Your task to perform on an android device: turn off priority inbox in the gmail app Image 0: 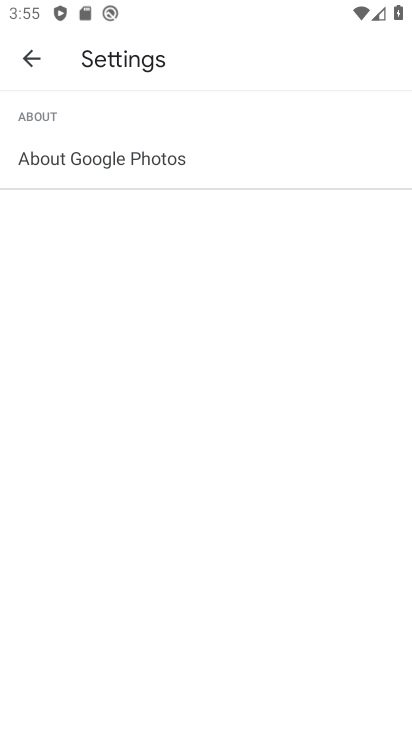
Step 0: press home button
Your task to perform on an android device: turn off priority inbox in the gmail app Image 1: 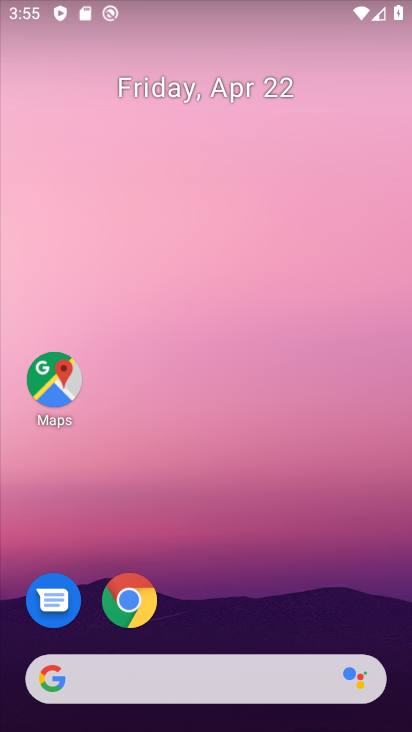
Step 1: drag from (249, 499) to (278, 112)
Your task to perform on an android device: turn off priority inbox in the gmail app Image 2: 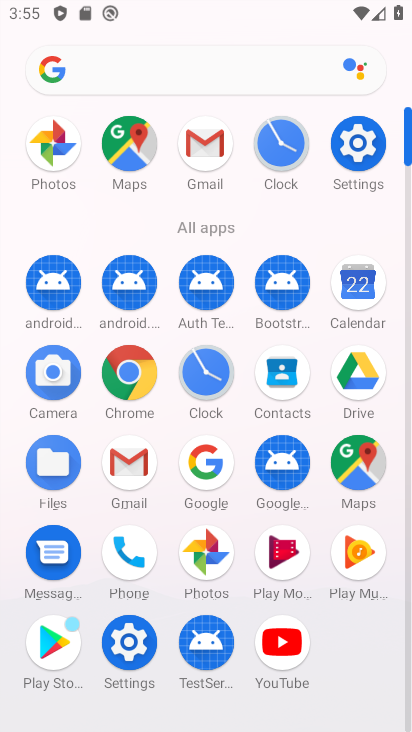
Step 2: click (204, 145)
Your task to perform on an android device: turn off priority inbox in the gmail app Image 3: 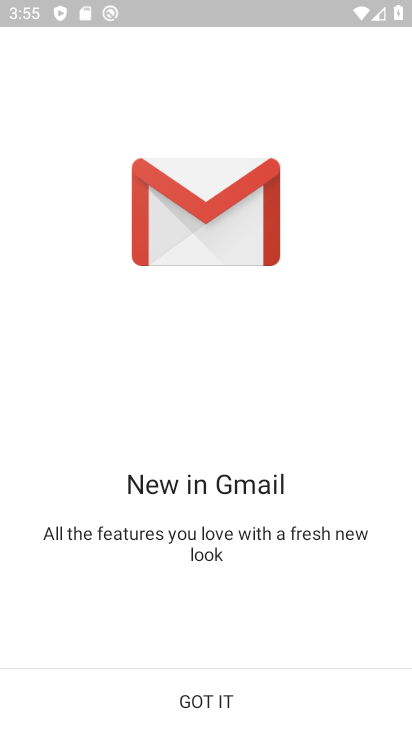
Step 3: click (199, 702)
Your task to perform on an android device: turn off priority inbox in the gmail app Image 4: 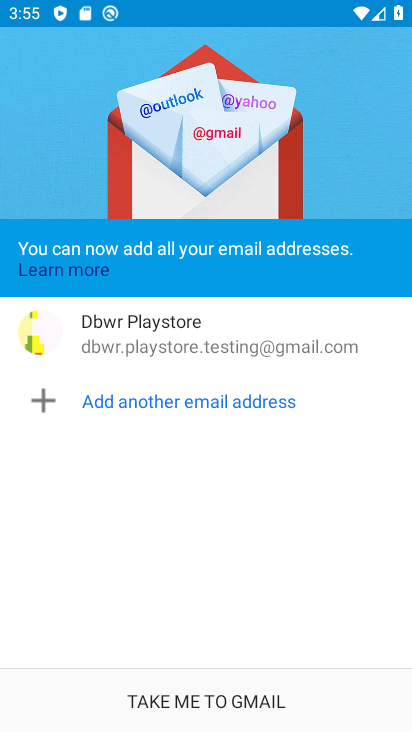
Step 4: click (199, 703)
Your task to perform on an android device: turn off priority inbox in the gmail app Image 5: 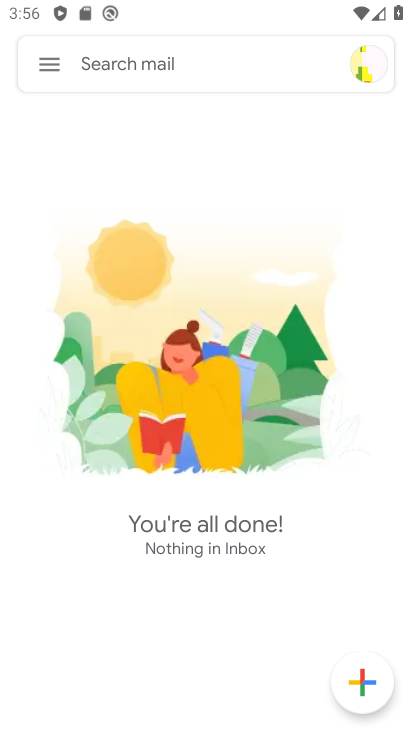
Step 5: click (52, 59)
Your task to perform on an android device: turn off priority inbox in the gmail app Image 6: 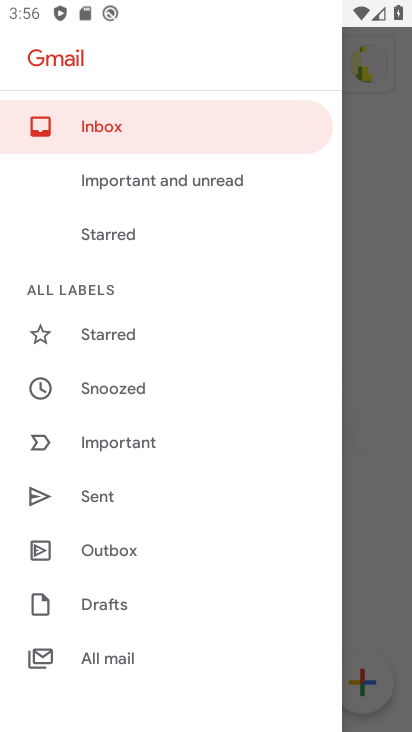
Step 6: drag from (104, 427) to (148, 303)
Your task to perform on an android device: turn off priority inbox in the gmail app Image 7: 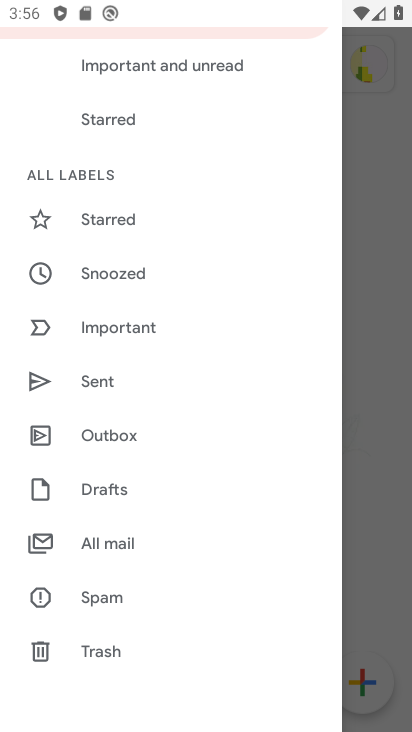
Step 7: drag from (129, 460) to (176, 368)
Your task to perform on an android device: turn off priority inbox in the gmail app Image 8: 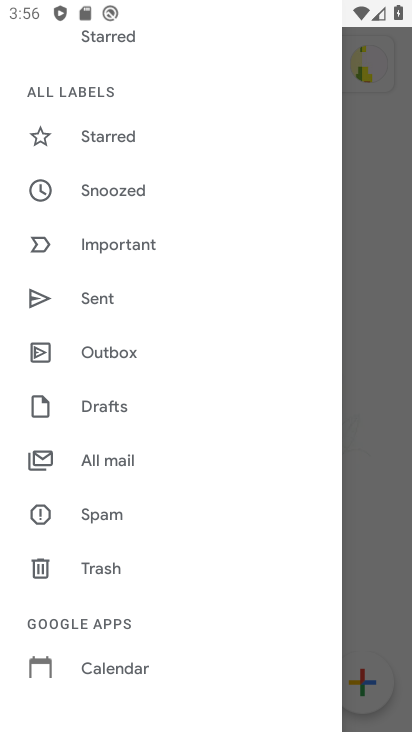
Step 8: drag from (113, 441) to (165, 338)
Your task to perform on an android device: turn off priority inbox in the gmail app Image 9: 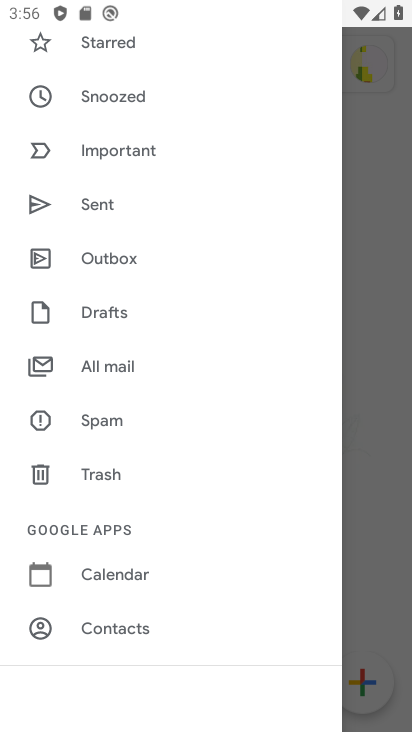
Step 9: drag from (118, 397) to (170, 315)
Your task to perform on an android device: turn off priority inbox in the gmail app Image 10: 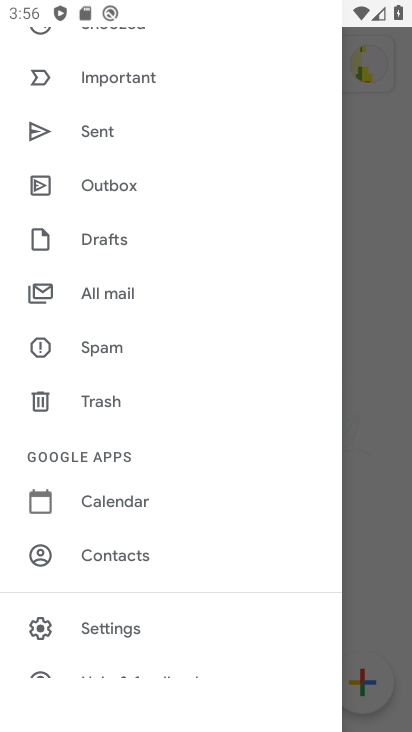
Step 10: drag from (120, 383) to (155, 318)
Your task to perform on an android device: turn off priority inbox in the gmail app Image 11: 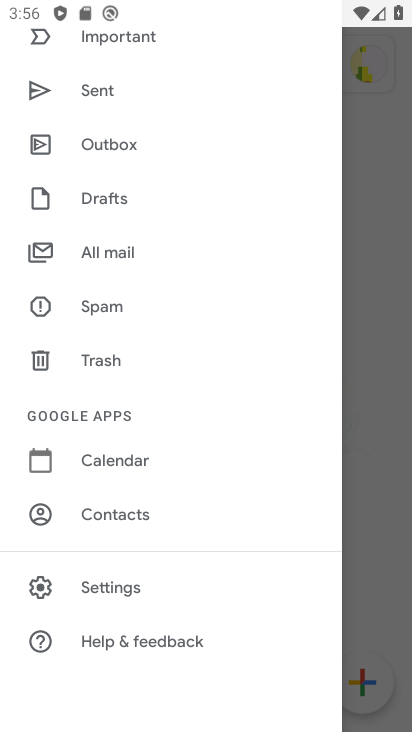
Step 11: click (130, 587)
Your task to perform on an android device: turn off priority inbox in the gmail app Image 12: 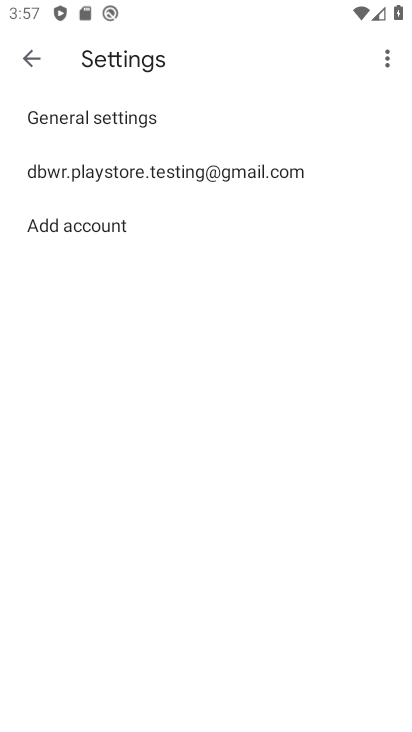
Step 12: click (242, 171)
Your task to perform on an android device: turn off priority inbox in the gmail app Image 13: 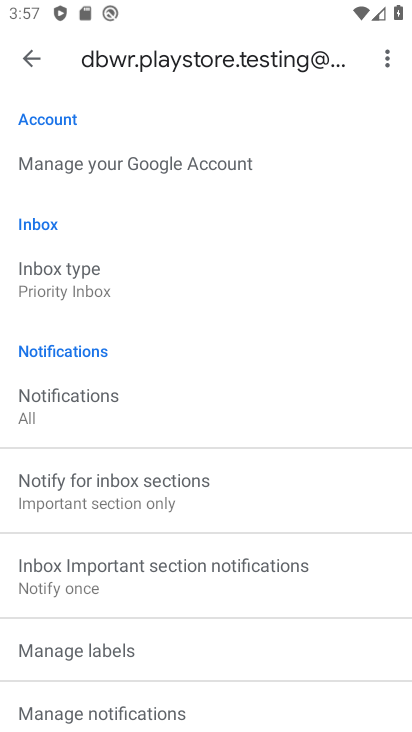
Step 13: click (90, 283)
Your task to perform on an android device: turn off priority inbox in the gmail app Image 14: 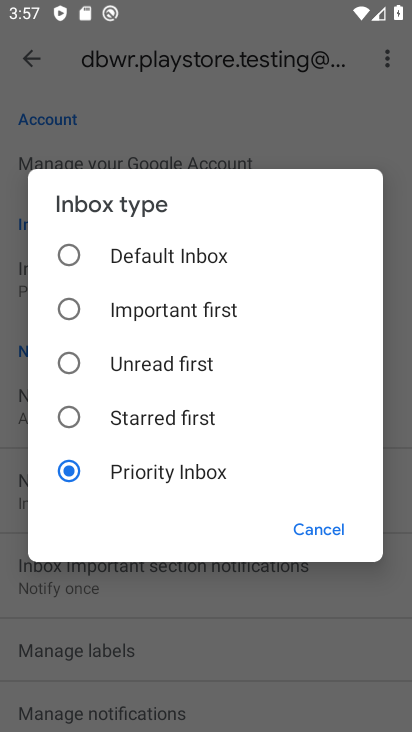
Step 14: click (73, 256)
Your task to perform on an android device: turn off priority inbox in the gmail app Image 15: 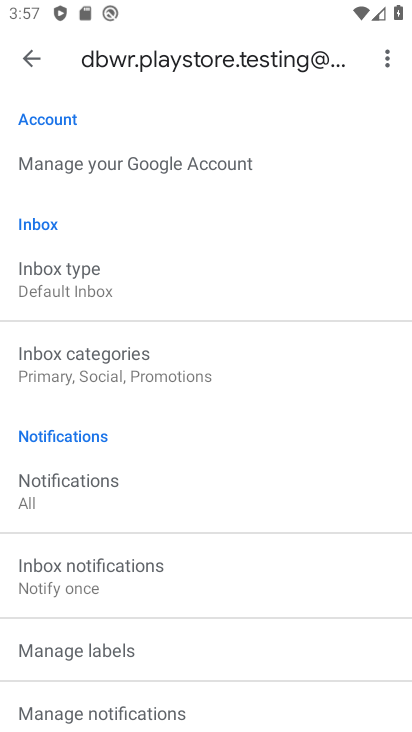
Step 15: task complete